Your task to perform on an android device: find which apps use the phone's location Image 0: 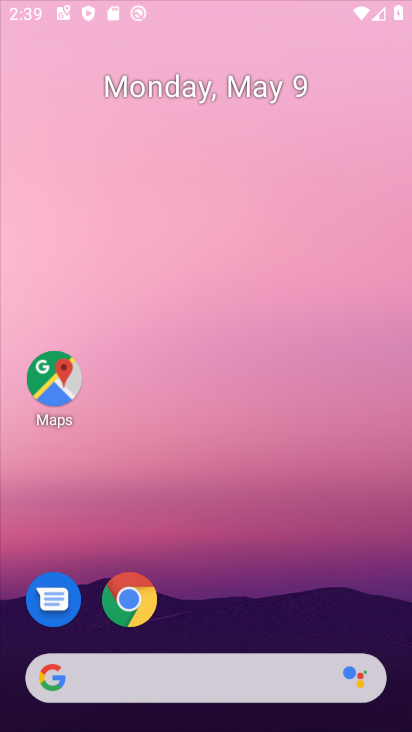
Step 0: click (325, 102)
Your task to perform on an android device: find which apps use the phone's location Image 1: 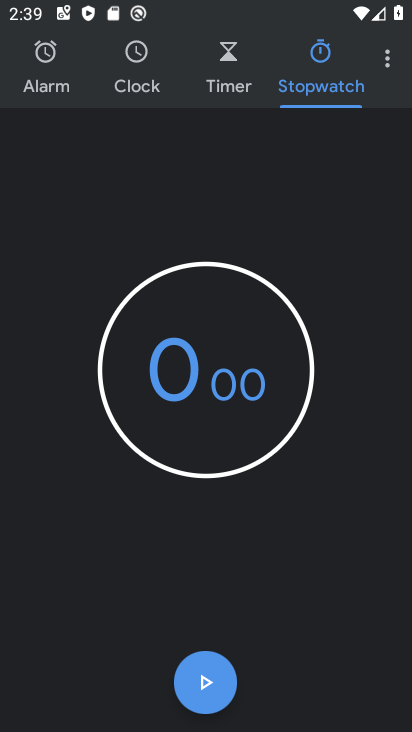
Step 1: press back button
Your task to perform on an android device: find which apps use the phone's location Image 2: 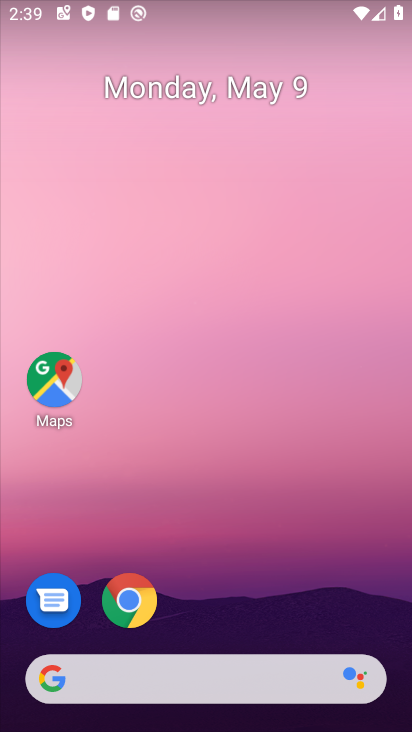
Step 2: drag from (221, 638) to (307, 68)
Your task to perform on an android device: find which apps use the phone's location Image 3: 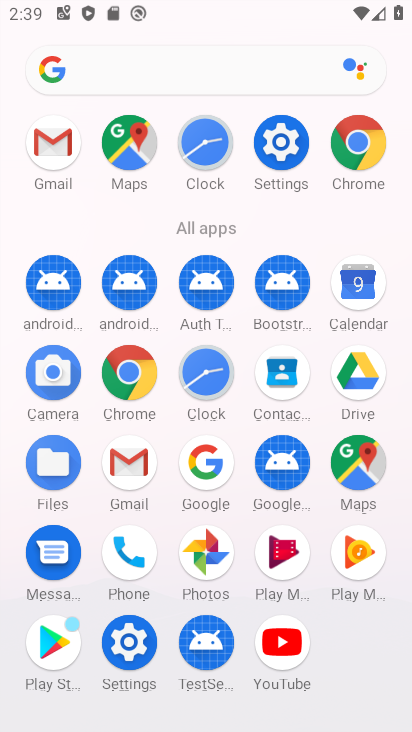
Step 3: click (288, 141)
Your task to perform on an android device: find which apps use the phone's location Image 4: 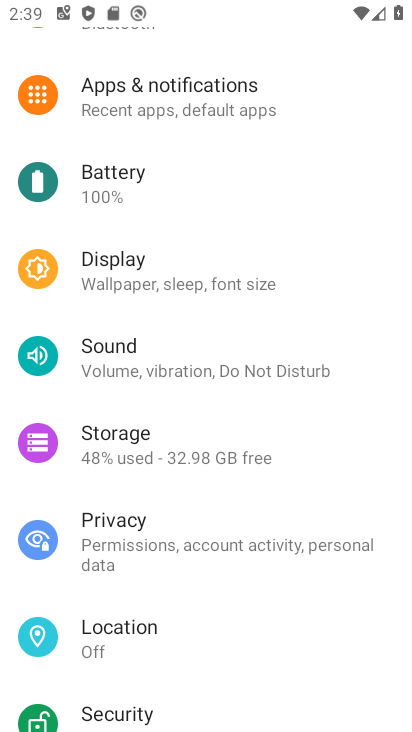
Step 4: click (155, 634)
Your task to perform on an android device: find which apps use the phone's location Image 5: 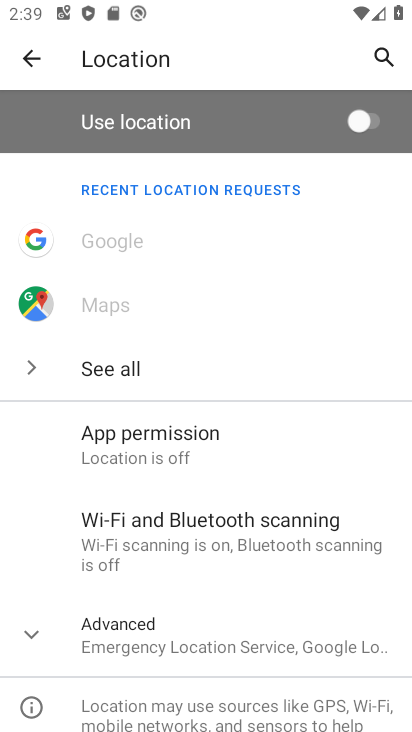
Step 5: drag from (185, 658) to (227, 563)
Your task to perform on an android device: find which apps use the phone's location Image 6: 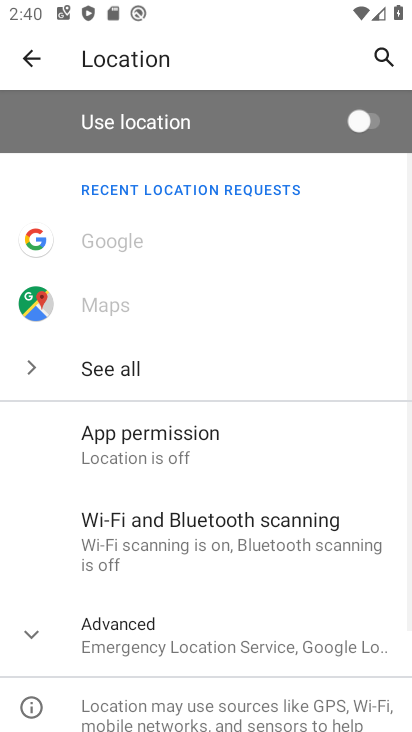
Step 6: click (146, 454)
Your task to perform on an android device: find which apps use the phone's location Image 7: 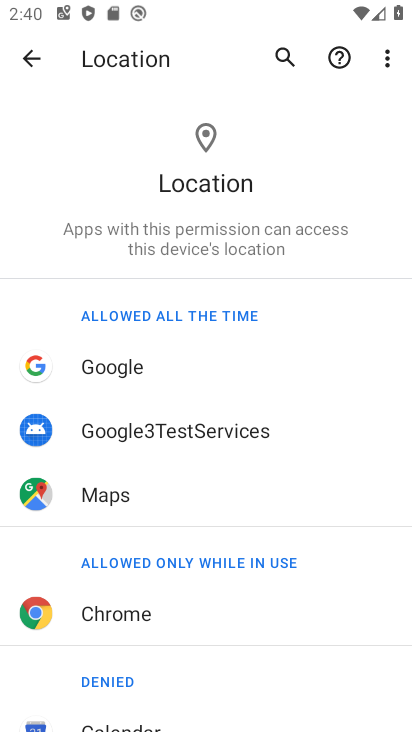
Step 7: task complete